Your task to perform on an android device: set the timer Image 0: 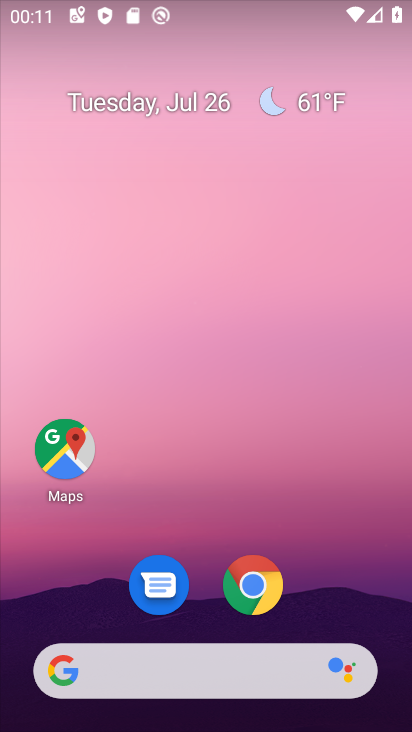
Step 0: drag from (328, 512) to (339, 16)
Your task to perform on an android device: set the timer Image 1: 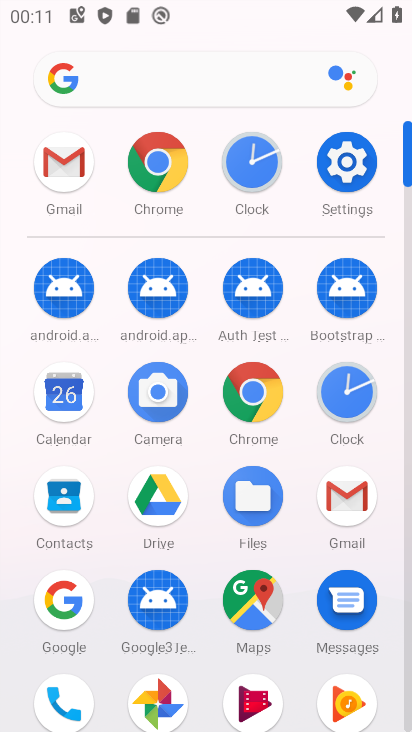
Step 1: click (350, 402)
Your task to perform on an android device: set the timer Image 2: 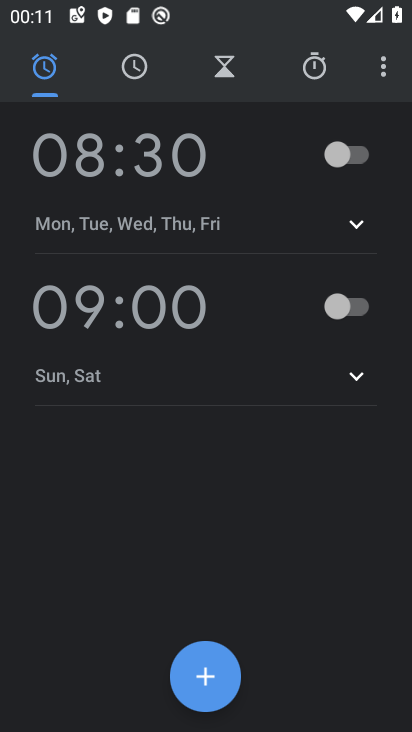
Step 2: click (233, 75)
Your task to perform on an android device: set the timer Image 3: 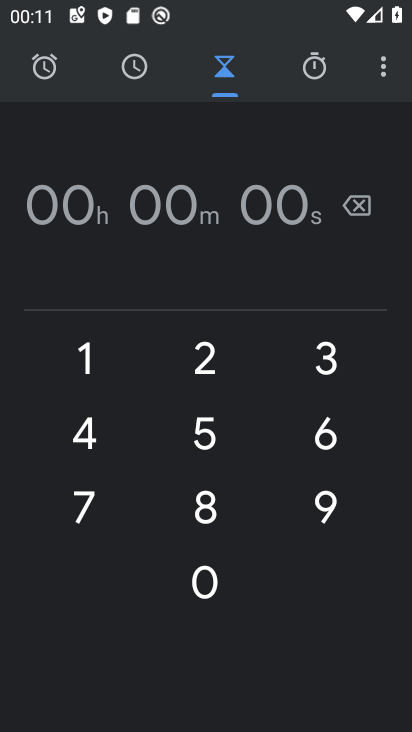
Step 3: task complete